Your task to perform on an android device: see tabs open on other devices in the chrome app Image 0: 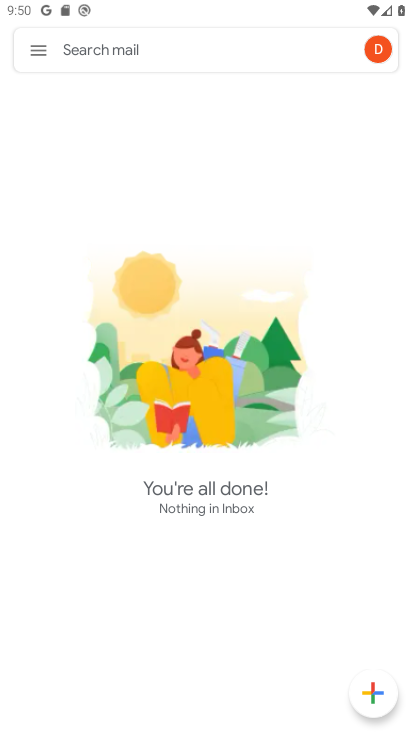
Step 0: press home button
Your task to perform on an android device: see tabs open on other devices in the chrome app Image 1: 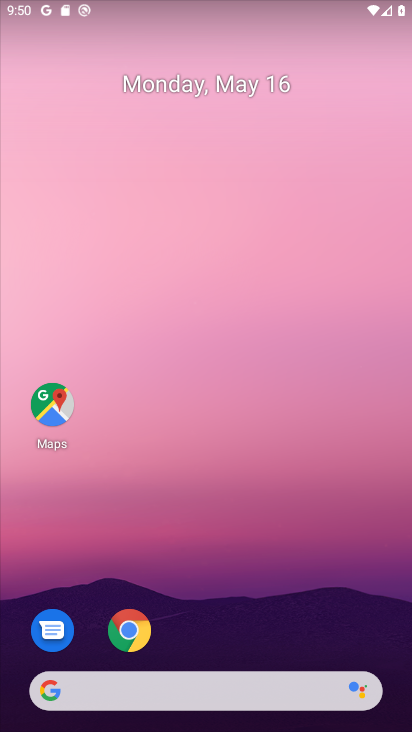
Step 1: click (134, 629)
Your task to perform on an android device: see tabs open on other devices in the chrome app Image 2: 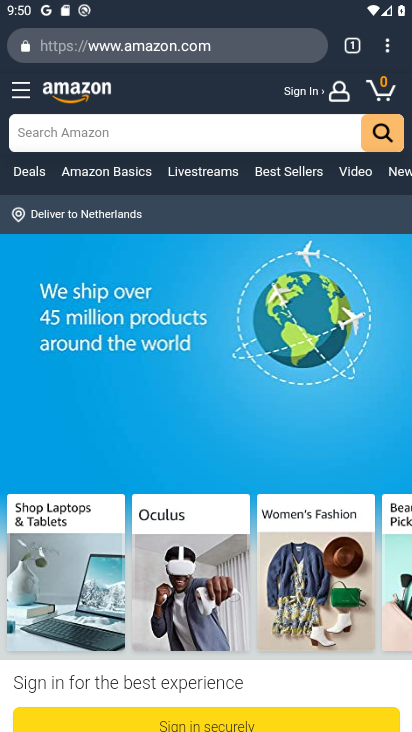
Step 2: click (386, 52)
Your task to perform on an android device: see tabs open on other devices in the chrome app Image 3: 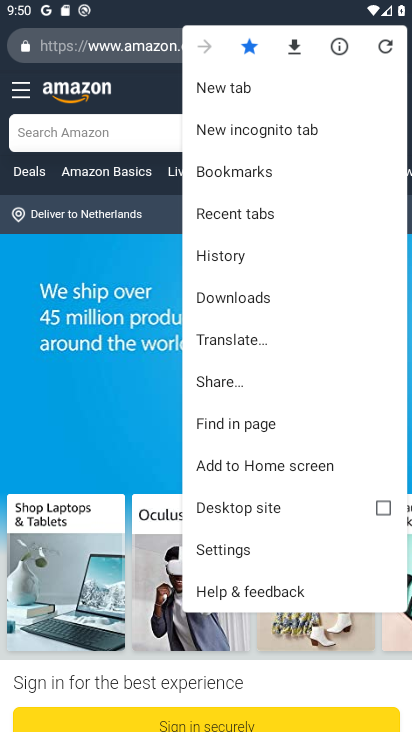
Step 3: click (250, 206)
Your task to perform on an android device: see tabs open on other devices in the chrome app Image 4: 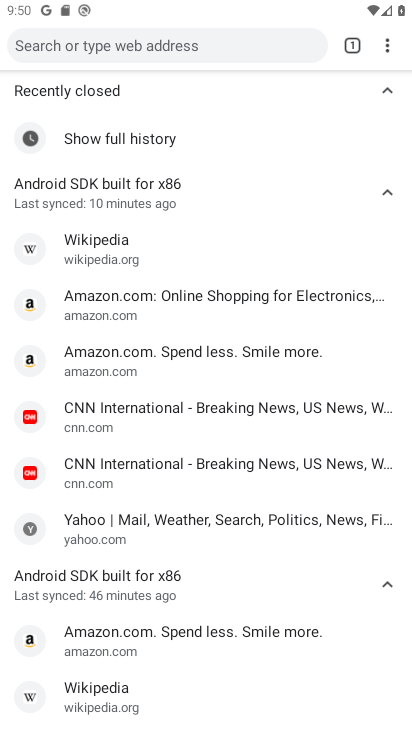
Step 4: task complete